Your task to perform on an android device: Open Yahoo.com Image 0: 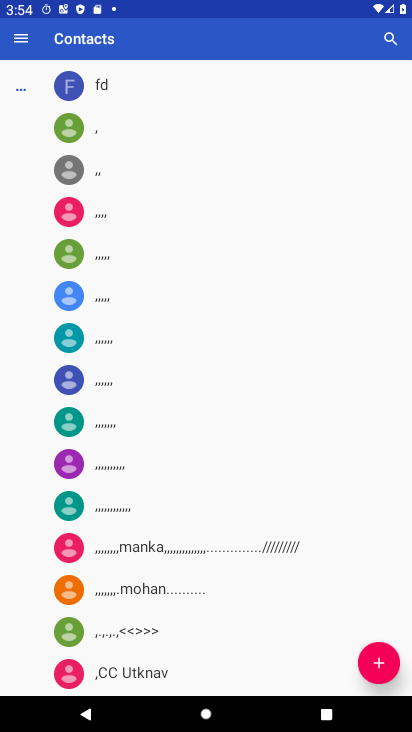
Step 0: press home button
Your task to perform on an android device: Open Yahoo.com Image 1: 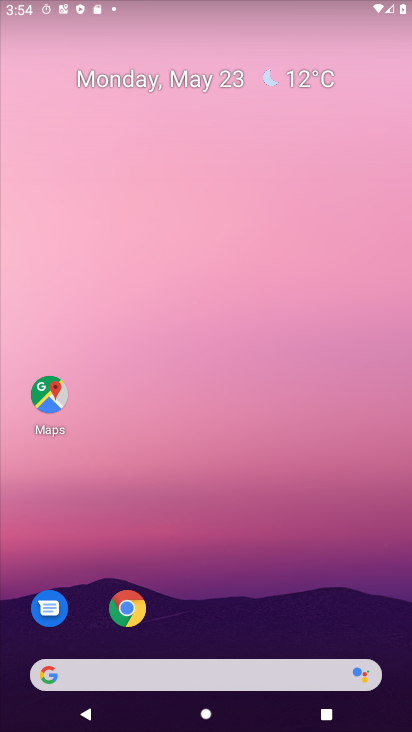
Step 1: drag from (309, 331) to (253, 67)
Your task to perform on an android device: Open Yahoo.com Image 2: 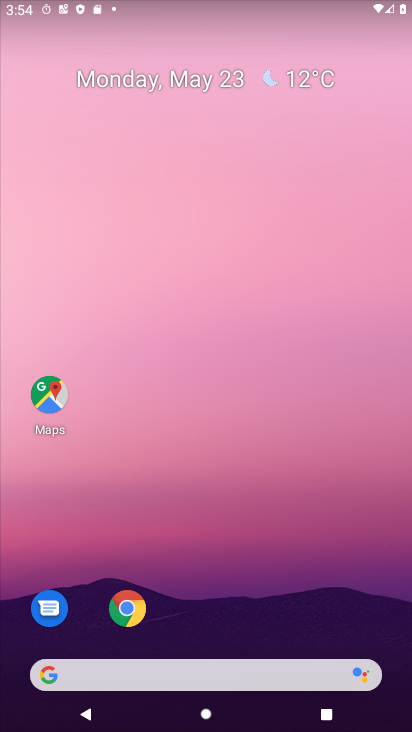
Step 2: click (137, 615)
Your task to perform on an android device: Open Yahoo.com Image 3: 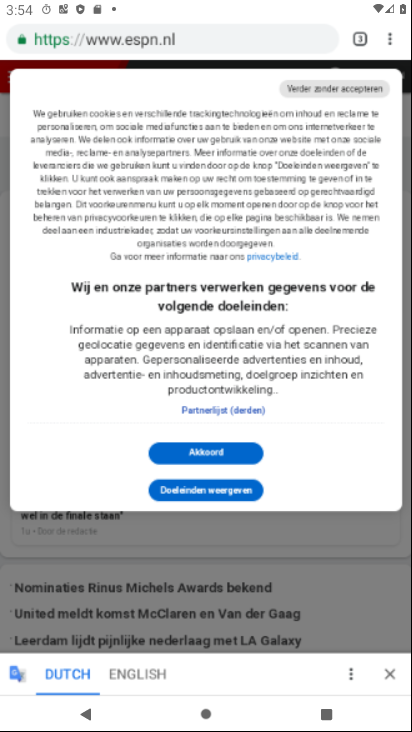
Step 3: click (364, 29)
Your task to perform on an android device: Open Yahoo.com Image 4: 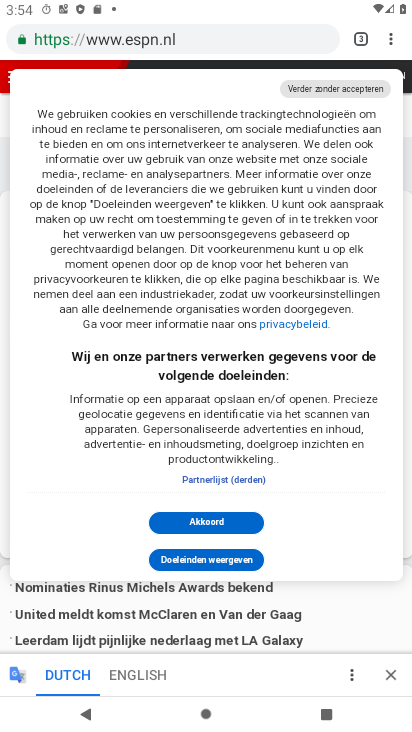
Step 4: click (361, 36)
Your task to perform on an android device: Open Yahoo.com Image 5: 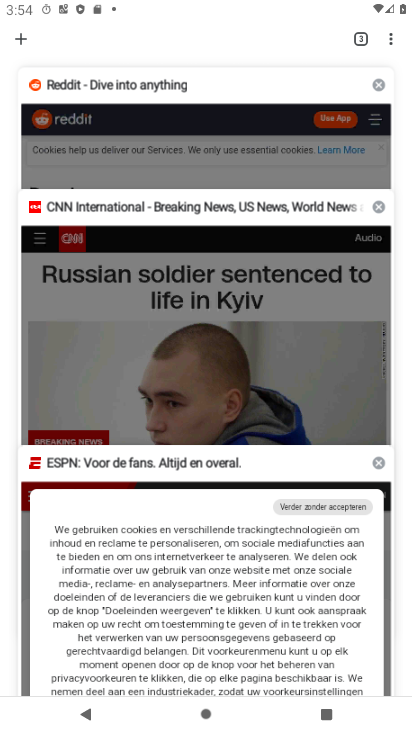
Step 5: click (18, 38)
Your task to perform on an android device: Open Yahoo.com Image 6: 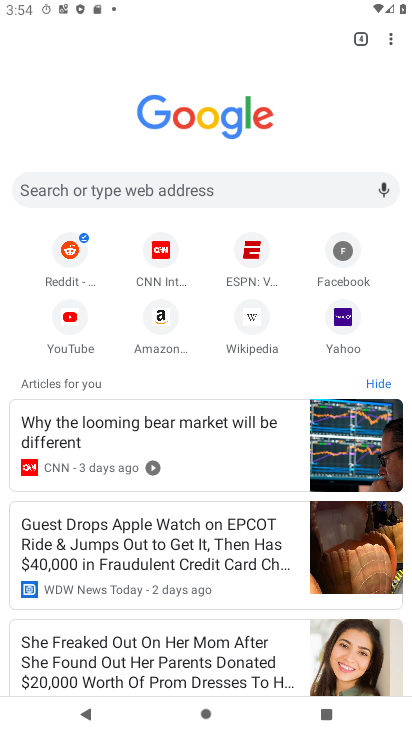
Step 6: click (339, 325)
Your task to perform on an android device: Open Yahoo.com Image 7: 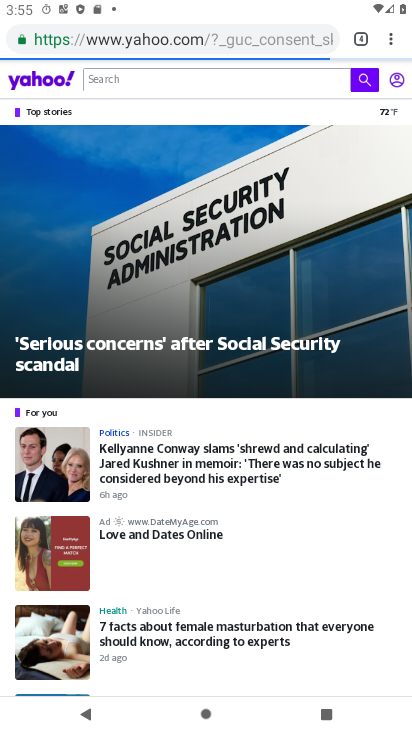
Step 7: task complete